Your task to perform on an android device: turn off location history Image 0: 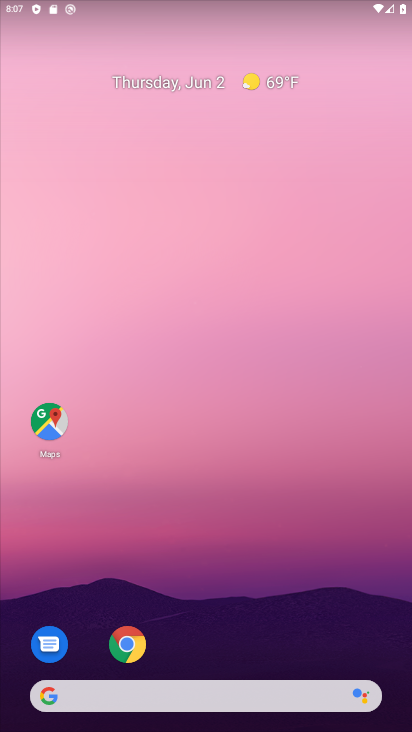
Step 0: drag from (242, 548) to (133, 11)
Your task to perform on an android device: turn off location history Image 1: 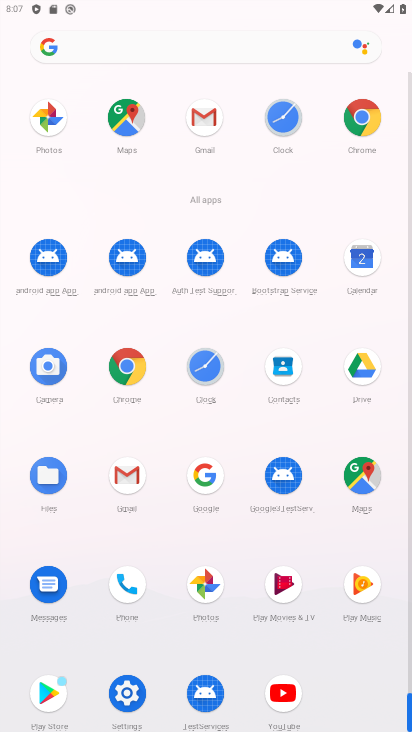
Step 1: click (125, 691)
Your task to perform on an android device: turn off location history Image 2: 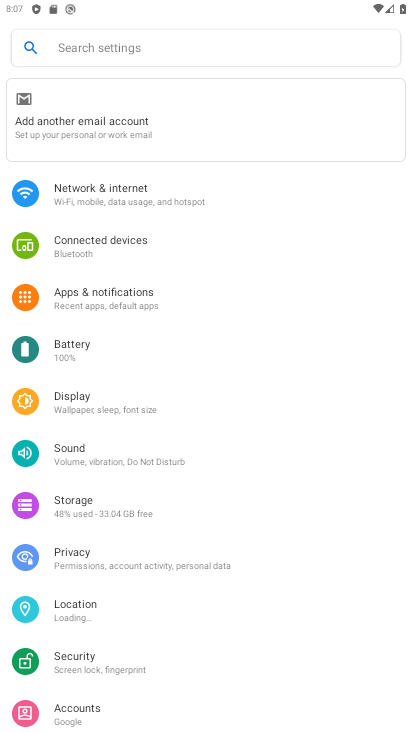
Step 2: click (71, 613)
Your task to perform on an android device: turn off location history Image 3: 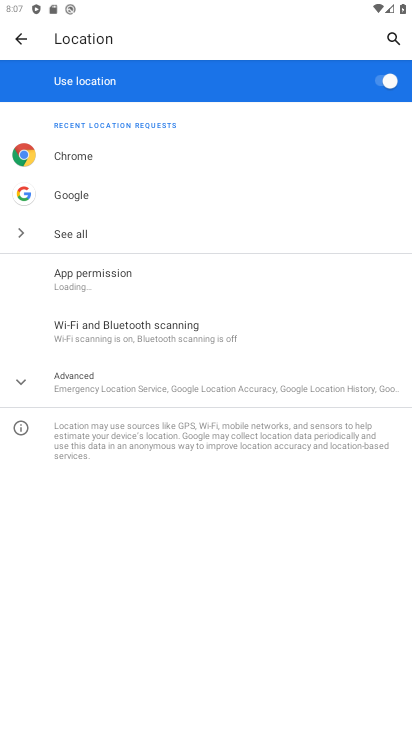
Step 3: click (88, 387)
Your task to perform on an android device: turn off location history Image 4: 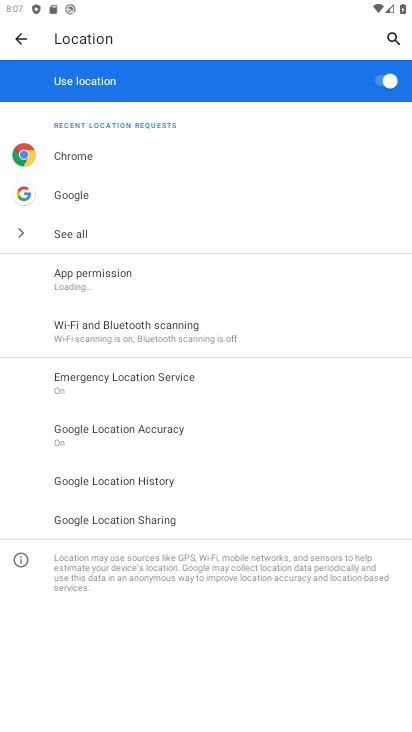
Step 4: click (127, 480)
Your task to perform on an android device: turn off location history Image 5: 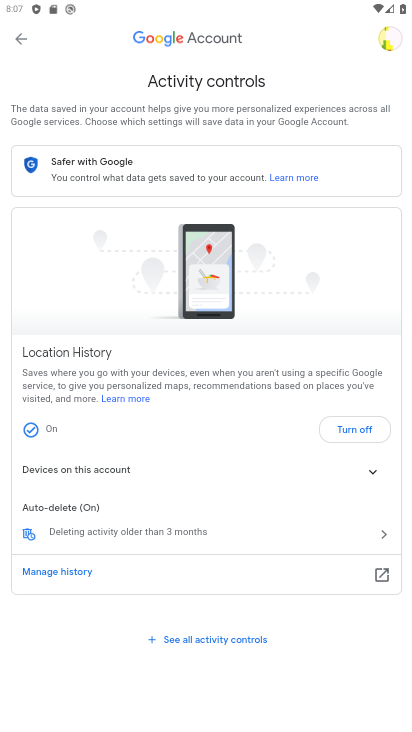
Step 5: click (371, 425)
Your task to perform on an android device: turn off location history Image 6: 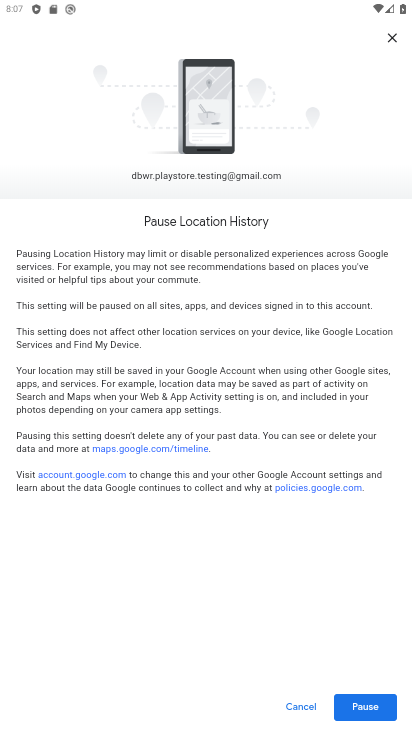
Step 6: click (367, 701)
Your task to perform on an android device: turn off location history Image 7: 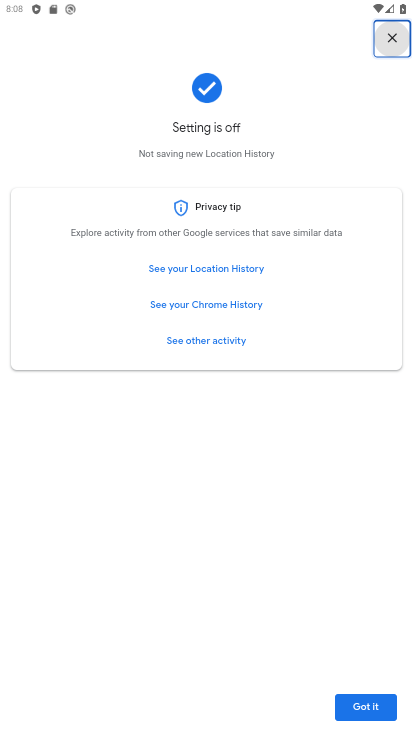
Step 7: task complete